Your task to perform on an android device: Go to wifi settings Image 0: 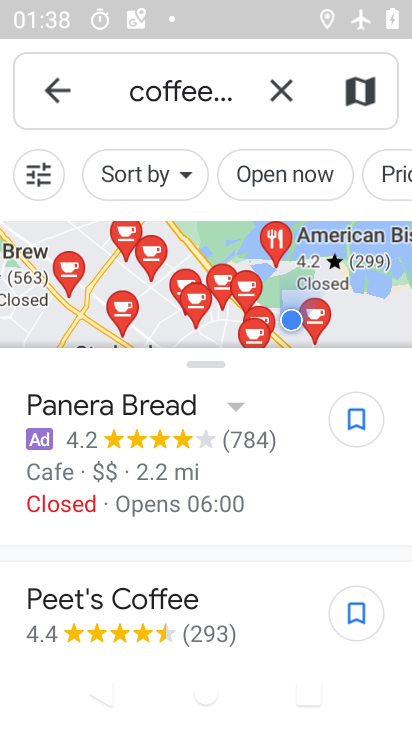
Step 0: press home button
Your task to perform on an android device: Go to wifi settings Image 1: 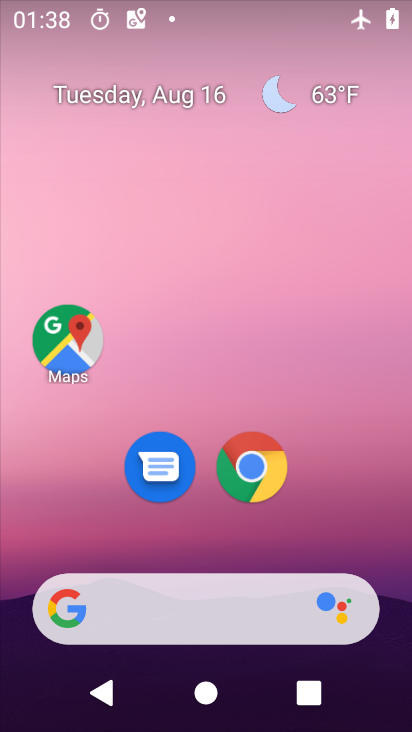
Step 1: drag from (363, 531) to (410, 120)
Your task to perform on an android device: Go to wifi settings Image 2: 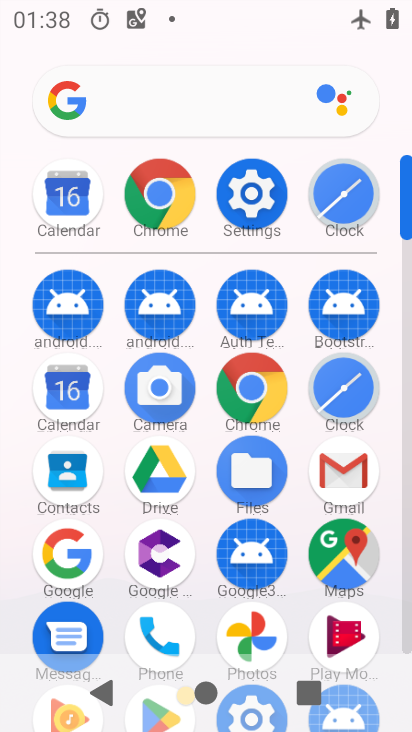
Step 2: click (257, 202)
Your task to perform on an android device: Go to wifi settings Image 3: 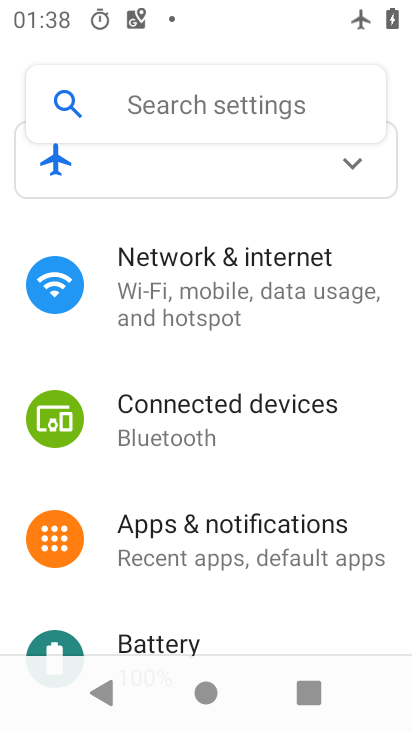
Step 3: click (237, 284)
Your task to perform on an android device: Go to wifi settings Image 4: 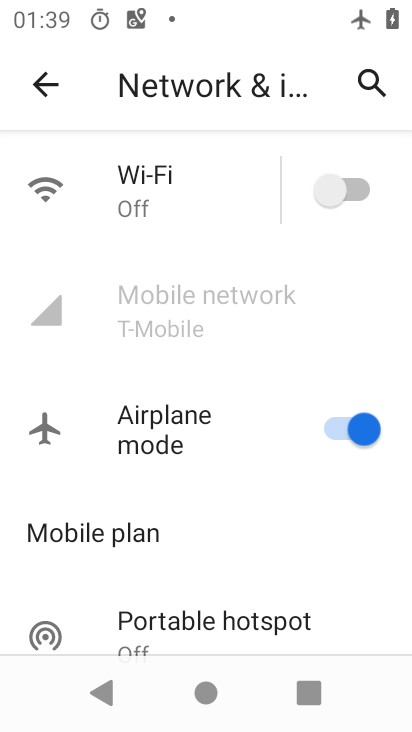
Step 4: click (145, 194)
Your task to perform on an android device: Go to wifi settings Image 5: 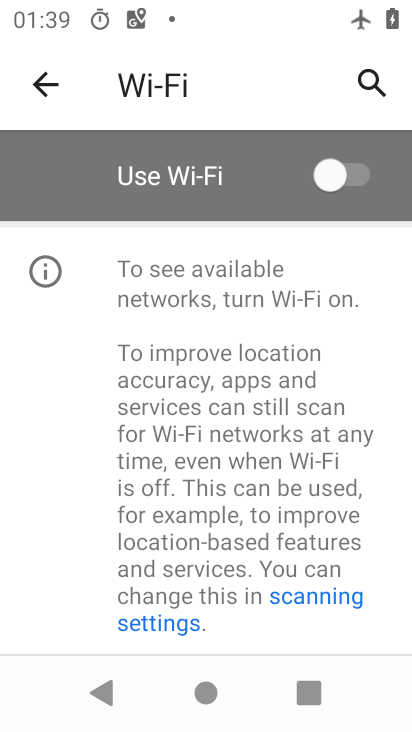
Step 5: task complete